Your task to perform on an android device: empty trash in the gmail app Image 0: 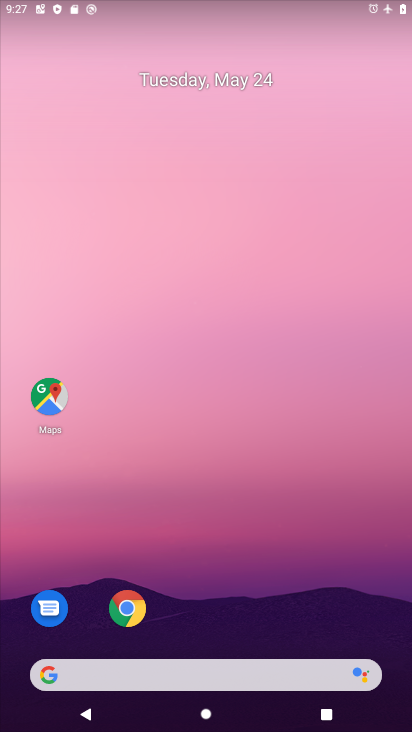
Step 0: drag from (225, 636) to (203, 11)
Your task to perform on an android device: empty trash in the gmail app Image 1: 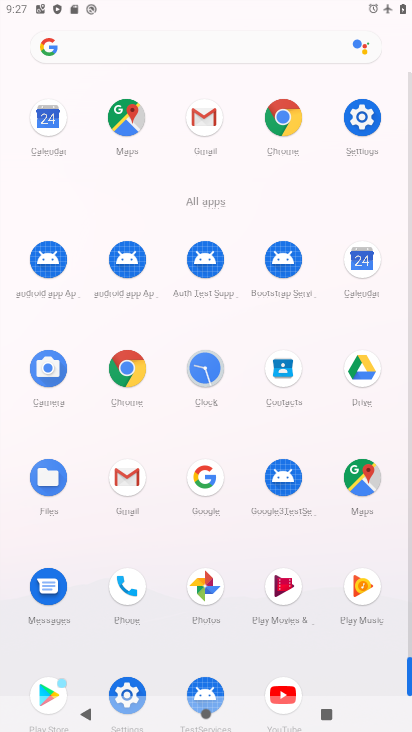
Step 1: click (126, 480)
Your task to perform on an android device: empty trash in the gmail app Image 2: 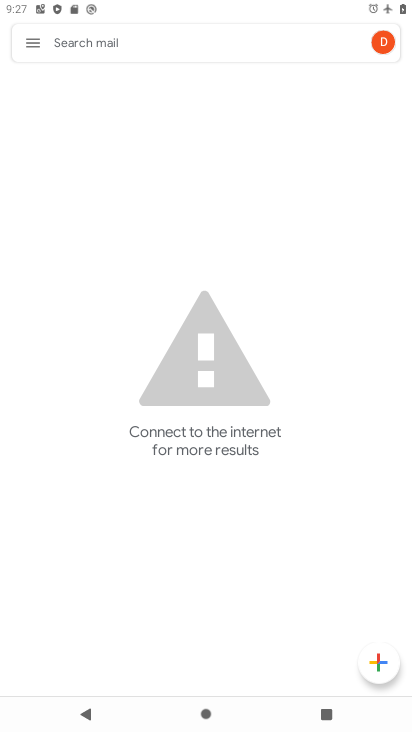
Step 2: click (28, 41)
Your task to perform on an android device: empty trash in the gmail app Image 3: 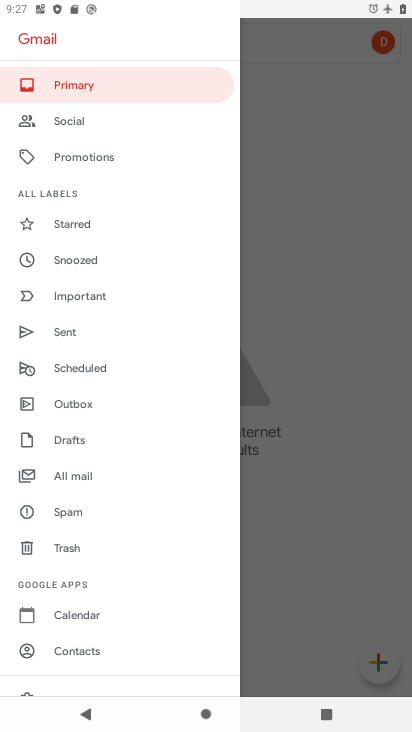
Step 3: click (62, 549)
Your task to perform on an android device: empty trash in the gmail app Image 4: 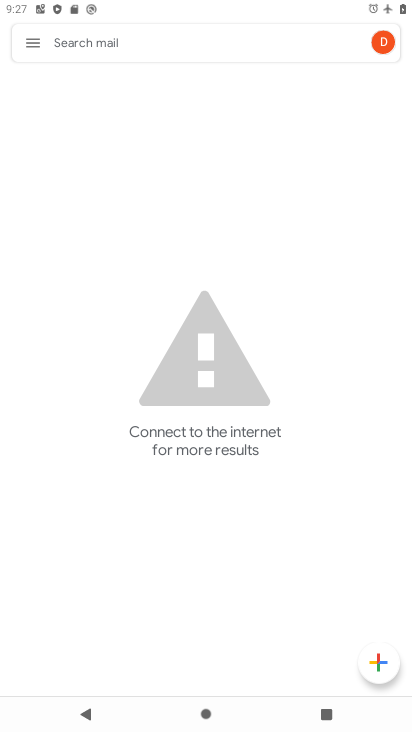
Step 4: task complete